Your task to perform on an android device: turn on showing notifications on the lock screen Image 0: 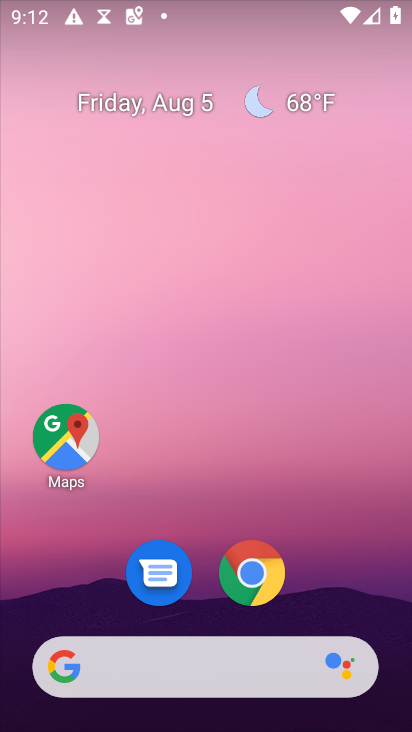
Step 0: drag from (189, 675) to (247, 78)
Your task to perform on an android device: turn on showing notifications on the lock screen Image 1: 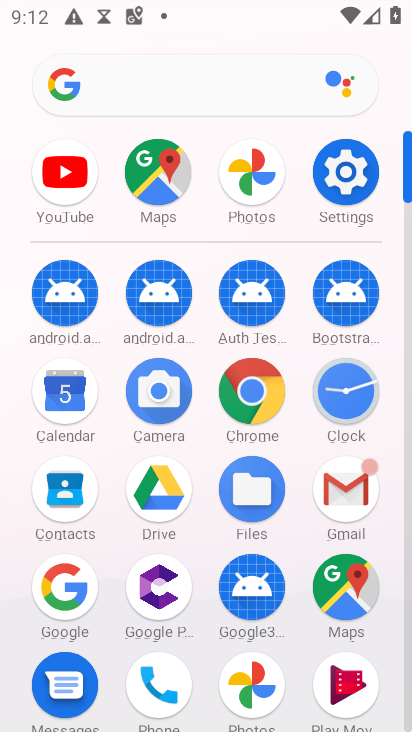
Step 1: click (344, 173)
Your task to perform on an android device: turn on showing notifications on the lock screen Image 2: 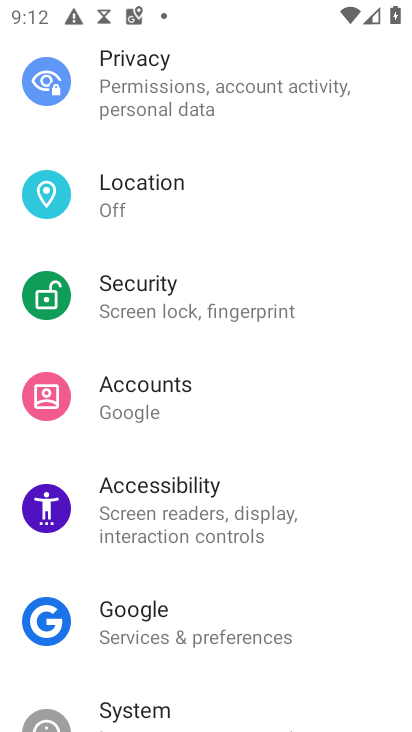
Step 2: drag from (258, 254) to (252, 388)
Your task to perform on an android device: turn on showing notifications on the lock screen Image 3: 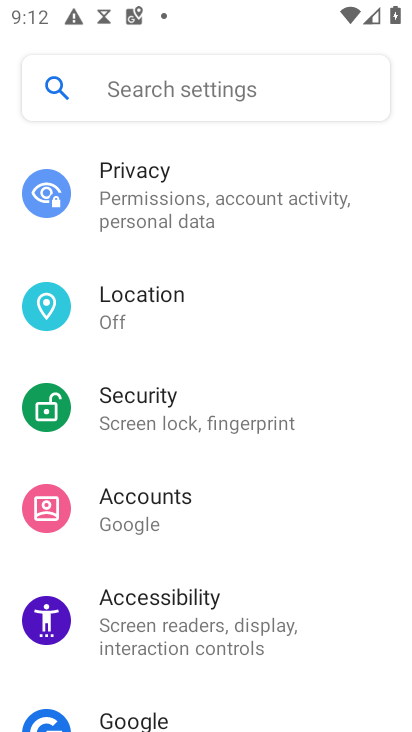
Step 3: drag from (244, 316) to (257, 478)
Your task to perform on an android device: turn on showing notifications on the lock screen Image 4: 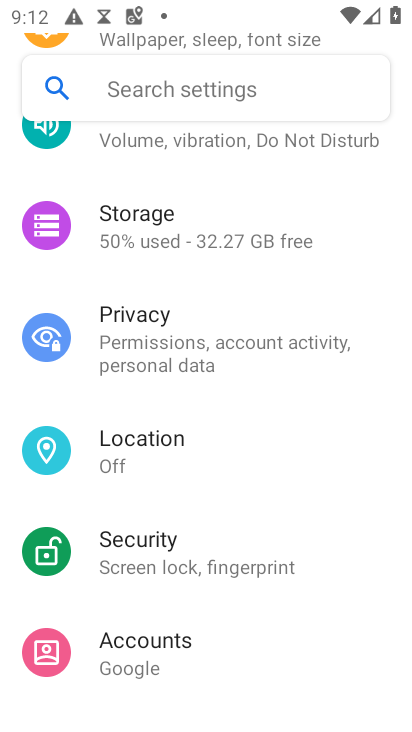
Step 4: drag from (254, 304) to (250, 474)
Your task to perform on an android device: turn on showing notifications on the lock screen Image 5: 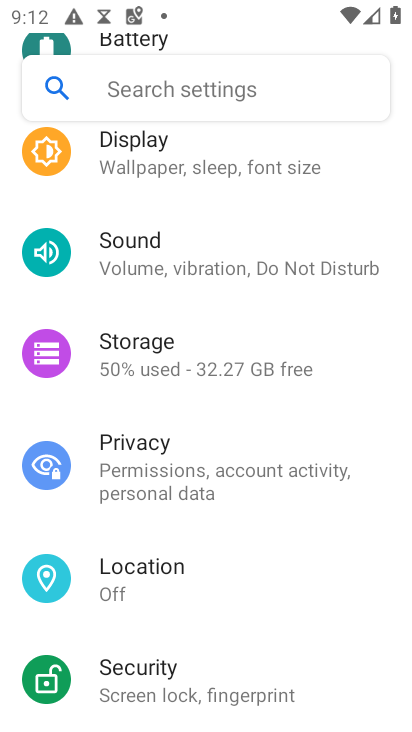
Step 5: drag from (255, 238) to (263, 386)
Your task to perform on an android device: turn on showing notifications on the lock screen Image 6: 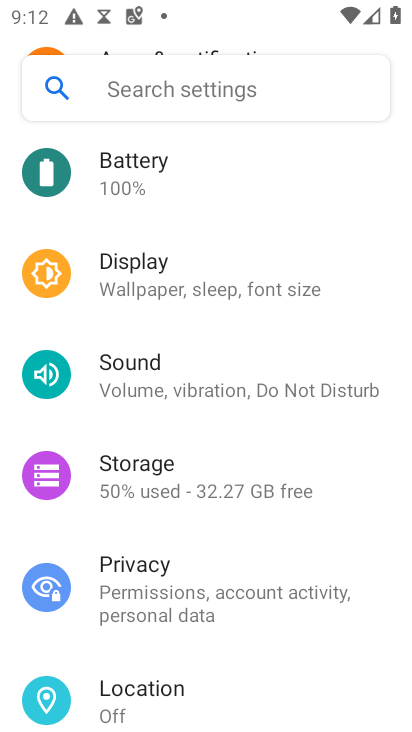
Step 6: drag from (248, 243) to (234, 471)
Your task to perform on an android device: turn on showing notifications on the lock screen Image 7: 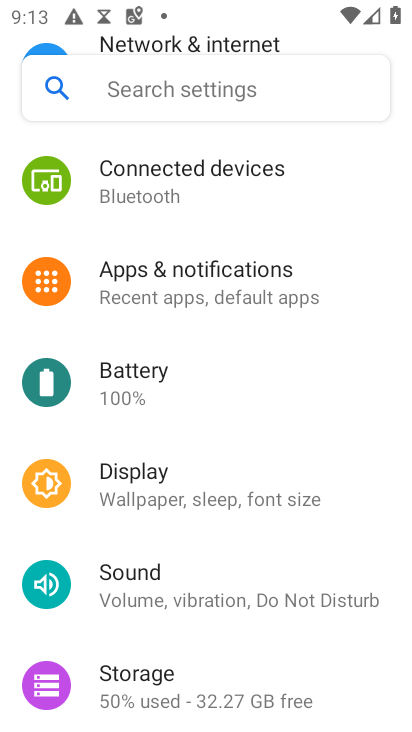
Step 7: click (246, 290)
Your task to perform on an android device: turn on showing notifications on the lock screen Image 8: 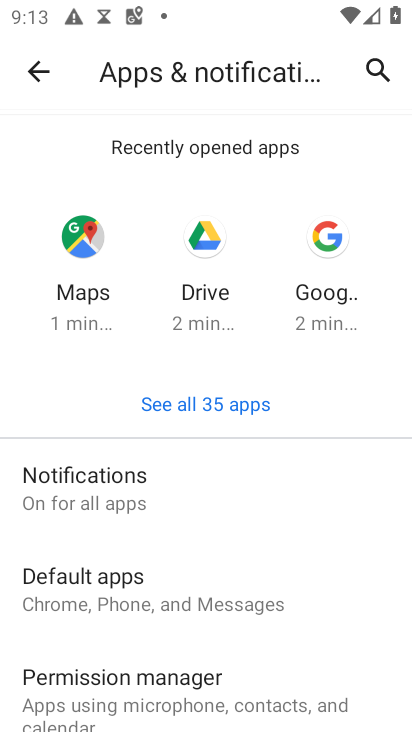
Step 8: drag from (191, 597) to (272, 424)
Your task to perform on an android device: turn on showing notifications on the lock screen Image 9: 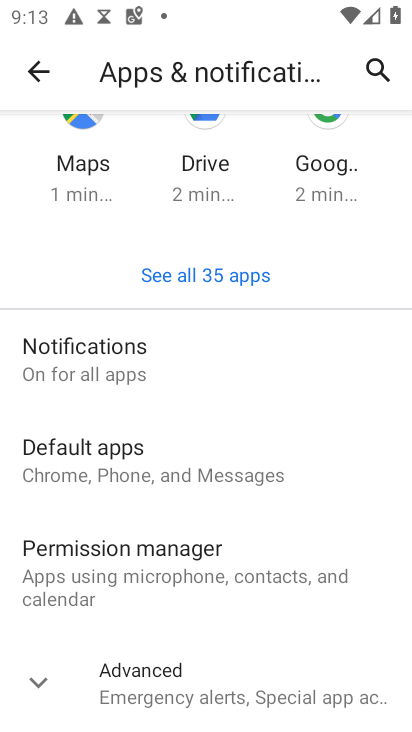
Step 9: click (127, 367)
Your task to perform on an android device: turn on showing notifications on the lock screen Image 10: 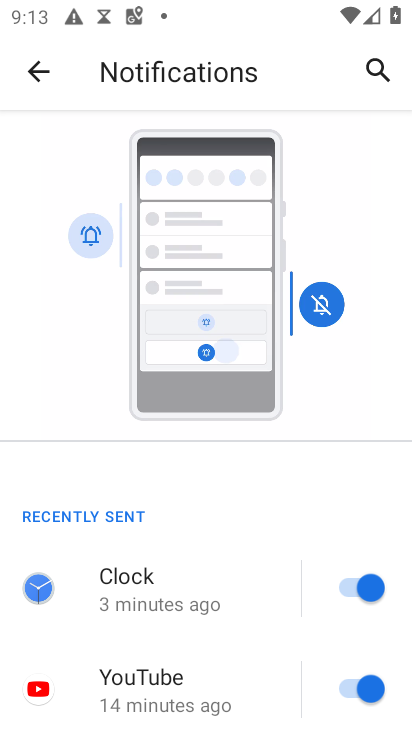
Step 10: drag from (192, 530) to (247, 369)
Your task to perform on an android device: turn on showing notifications on the lock screen Image 11: 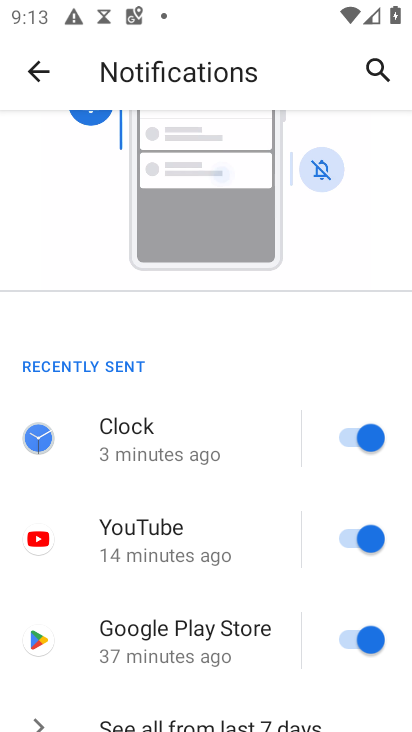
Step 11: drag from (164, 584) to (246, 448)
Your task to perform on an android device: turn on showing notifications on the lock screen Image 12: 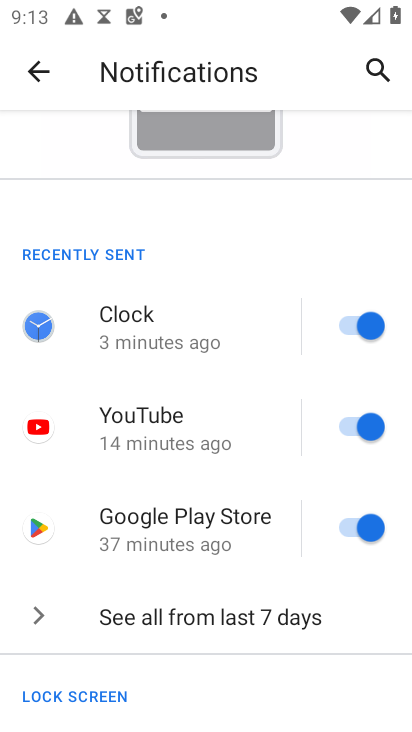
Step 12: drag from (183, 675) to (263, 477)
Your task to perform on an android device: turn on showing notifications on the lock screen Image 13: 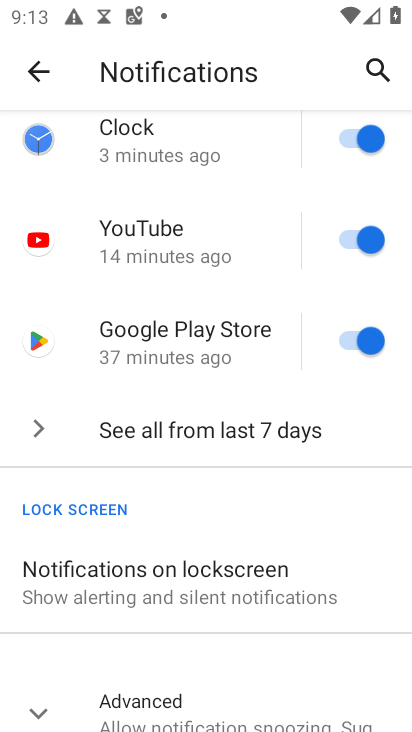
Step 13: click (250, 585)
Your task to perform on an android device: turn on showing notifications on the lock screen Image 14: 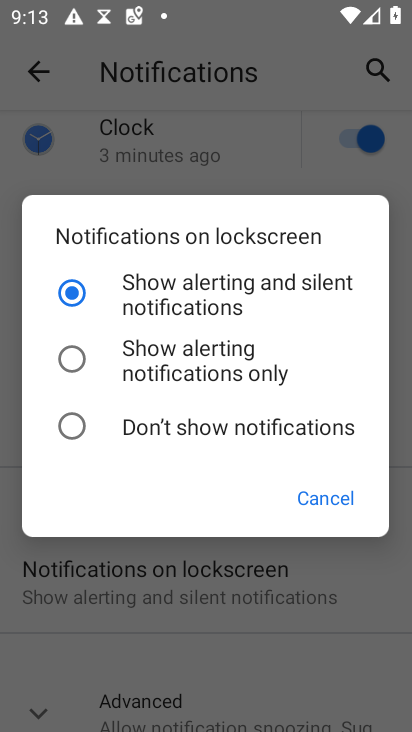
Step 14: click (67, 293)
Your task to perform on an android device: turn on showing notifications on the lock screen Image 15: 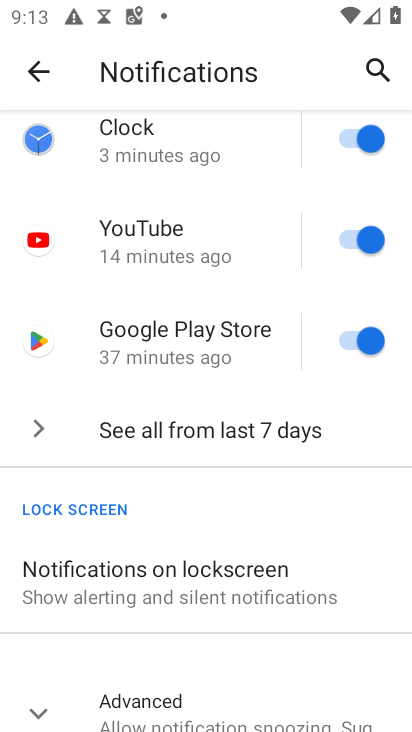
Step 15: task complete